Your task to perform on an android device: visit the assistant section in the google photos Image 0: 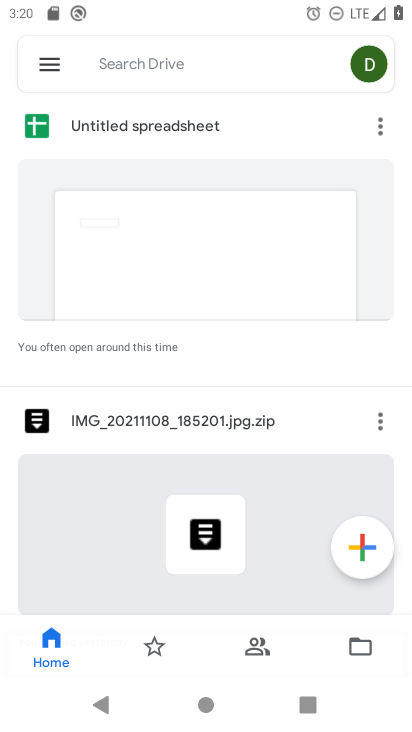
Step 0: press home button
Your task to perform on an android device: visit the assistant section in the google photos Image 1: 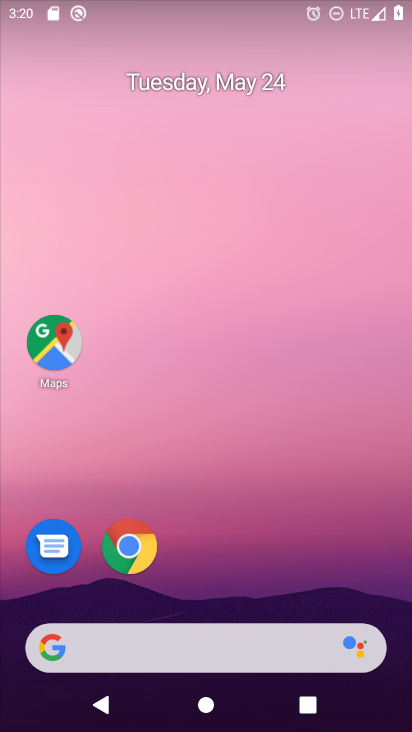
Step 1: drag from (143, 603) to (196, 0)
Your task to perform on an android device: visit the assistant section in the google photos Image 2: 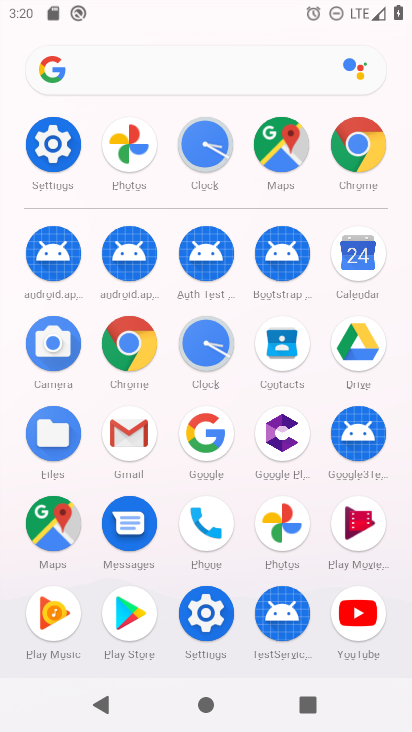
Step 2: click (297, 527)
Your task to perform on an android device: visit the assistant section in the google photos Image 3: 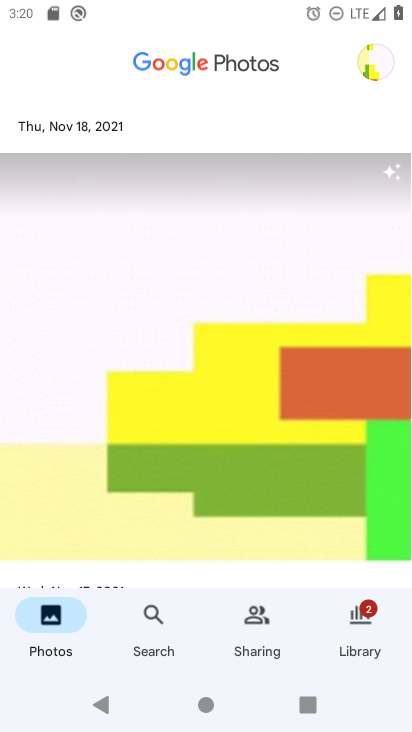
Step 3: click (369, 61)
Your task to perform on an android device: visit the assistant section in the google photos Image 4: 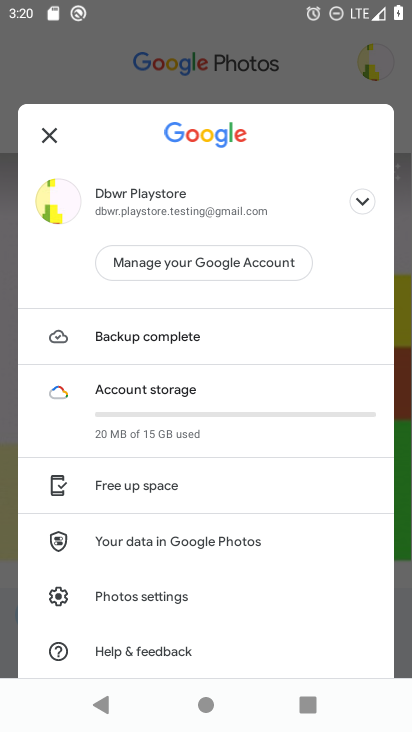
Step 4: task complete